Your task to perform on an android device: Open ESPN.com Image 0: 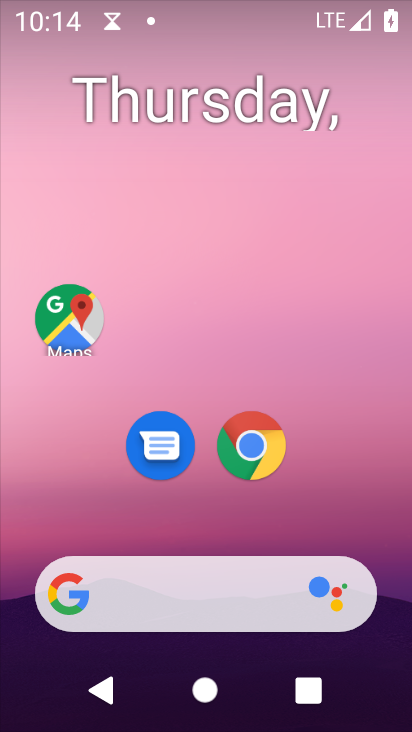
Step 0: click (269, 453)
Your task to perform on an android device: Open ESPN.com Image 1: 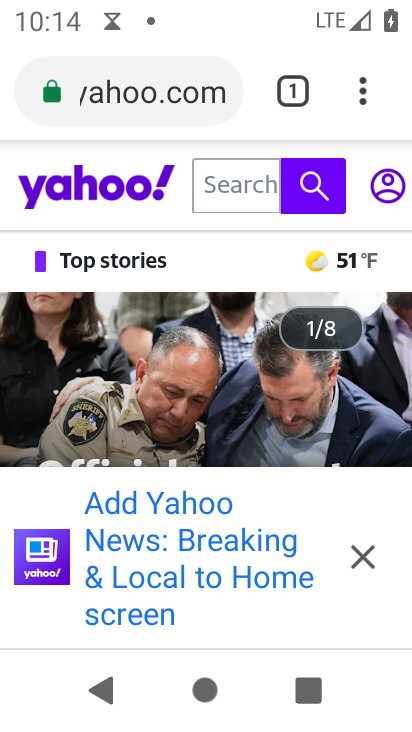
Step 1: click (155, 94)
Your task to perform on an android device: Open ESPN.com Image 2: 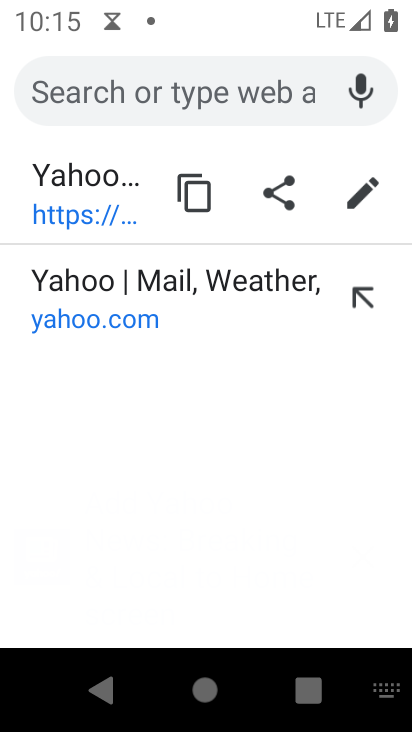
Step 2: type "Espn.com"
Your task to perform on an android device: Open ESPN.com Image 3: 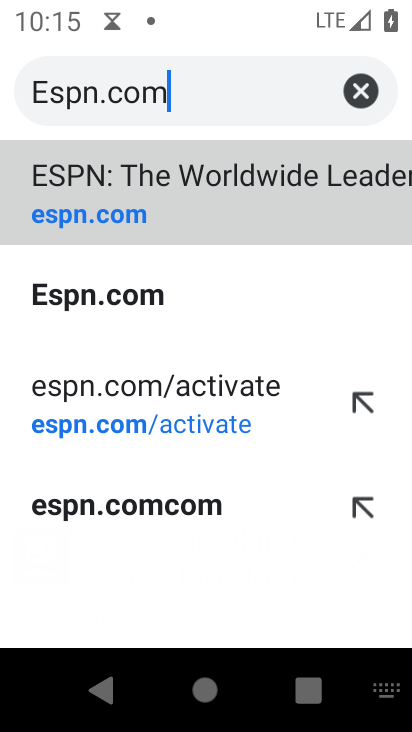
Step 3: click (95, 216)
Your task to perform on an android device: Open ESPN.com Image 4: 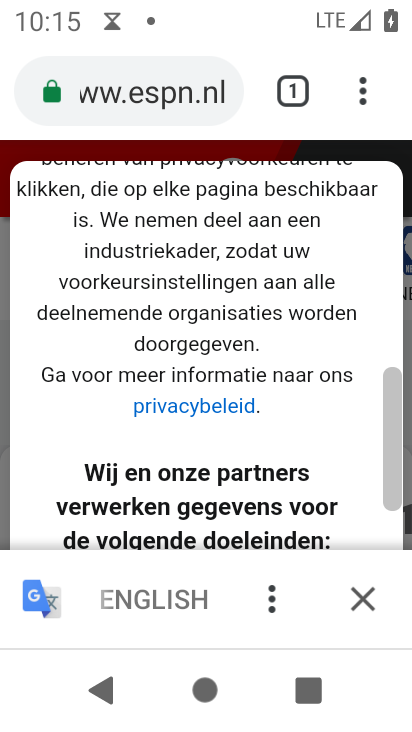
Step 4: click (359, 602)
Your task to perform on an android device: Open ESPN.com Image 5: 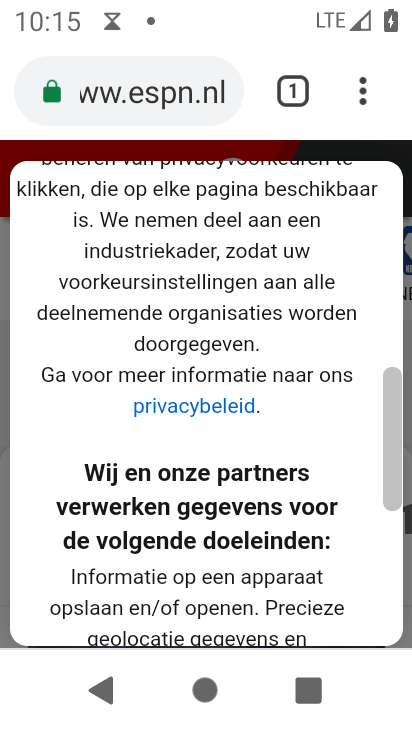
Step 5: drag from (332, 589) to (302, 176)
Your task to perform on an android device: Open ESPN.com Image 6: 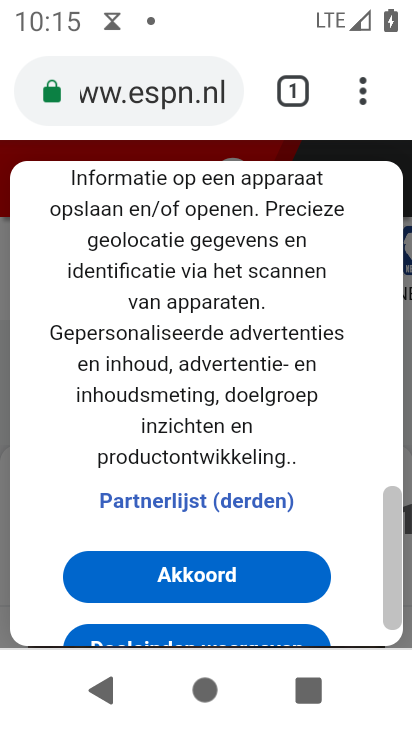
Step 6: click (261, 587)
Your task to perform on an android device: Open ESPN.com Image 7: 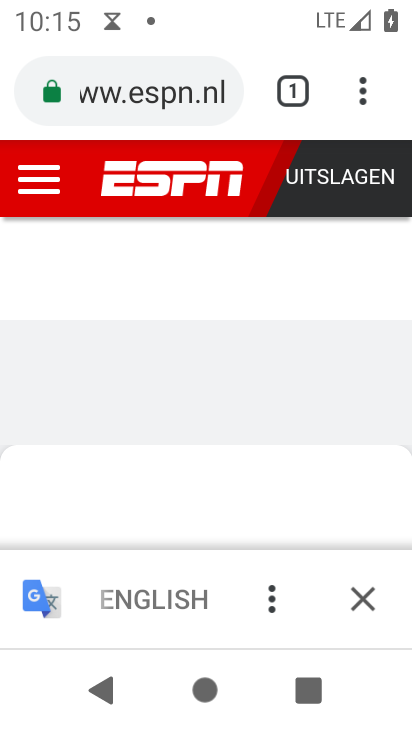
Step 7: task complete